Your task to perform on an android device: Open Google Chrome and open the bookmarks view Image 0: 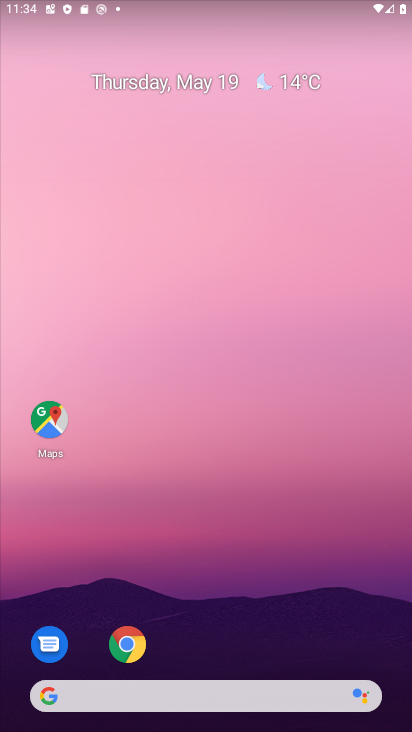
Step 0: click (143, 649)
Your task to perform on an android device: Open Google Chrome and open the bookmarks view Image 1: 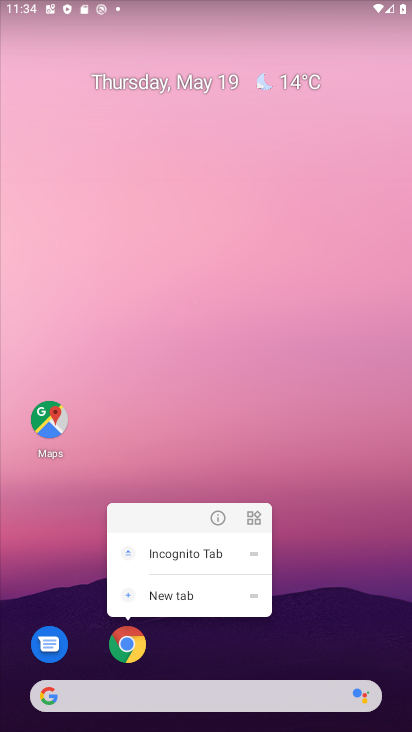
Step 1: click (130, 643)
Your task to perform on an android device: Open Google Chrome and open the bookmarks view Image 2: 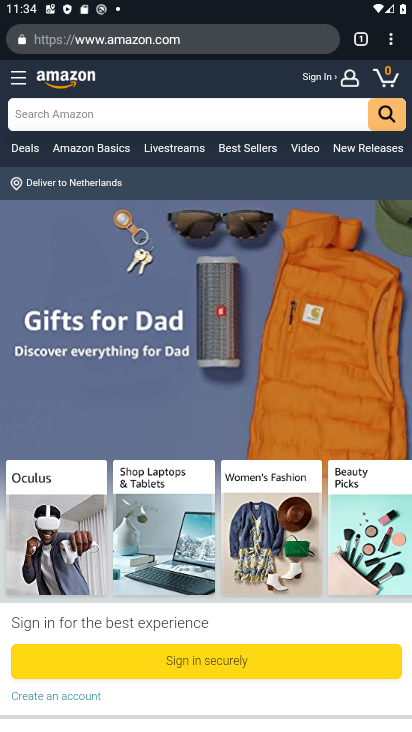
Step 2: click (381, 29)
Your task to perform on an android device: Open Google Chrome and open the bookmarks view Image 3: 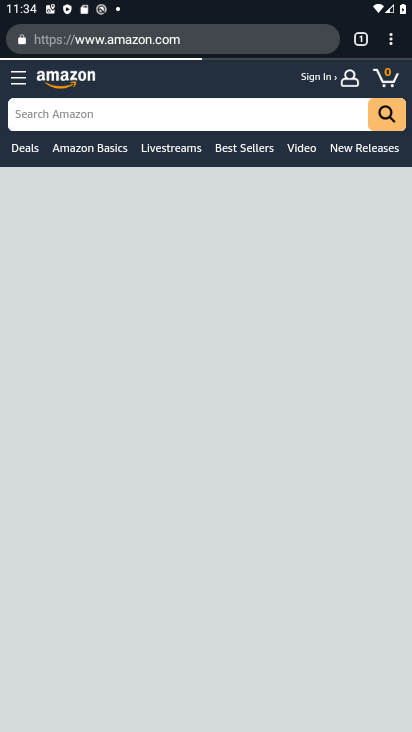
Step 3: click (398, 39)
Your task to perform on an android device: Open Google Chrome and open the bookmarks view Image 4: 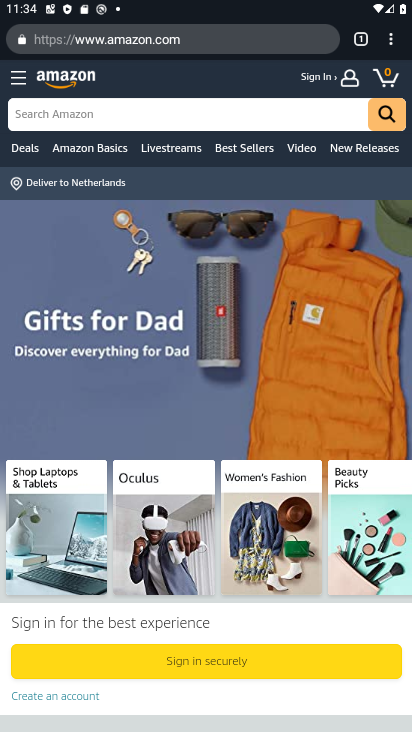
Step 4: task complete